Your task to perform on an android device: open a new tab in the chrome app Image 0: 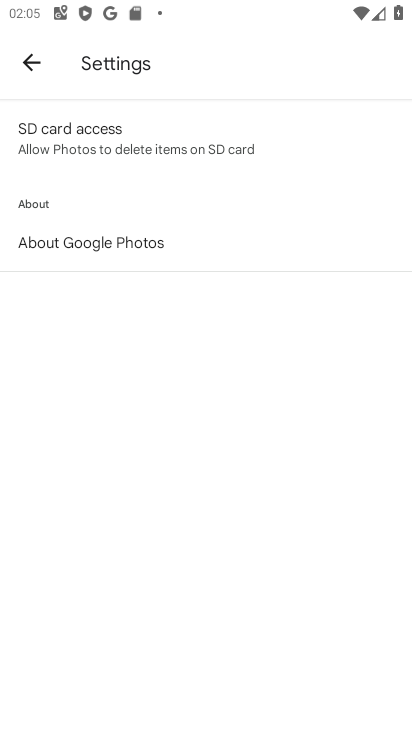
Step 0: click (359, 320)
Your task to perform on an android device: open a new tab in the chrome app Image 1: 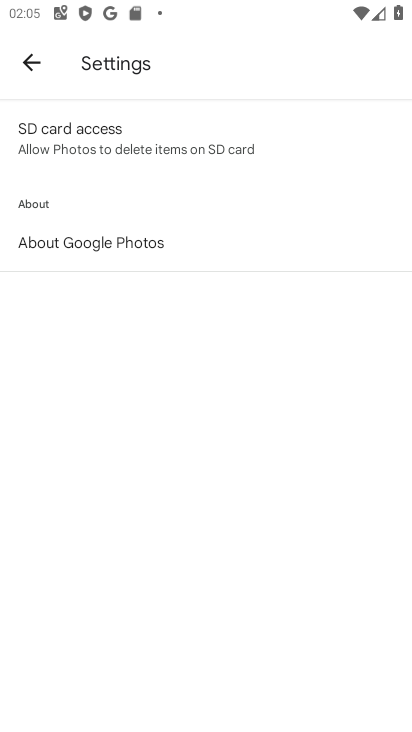
Step 1: click (258, 529)
Your task to perform on an android device: open a new tab in the chrome app Image 2: 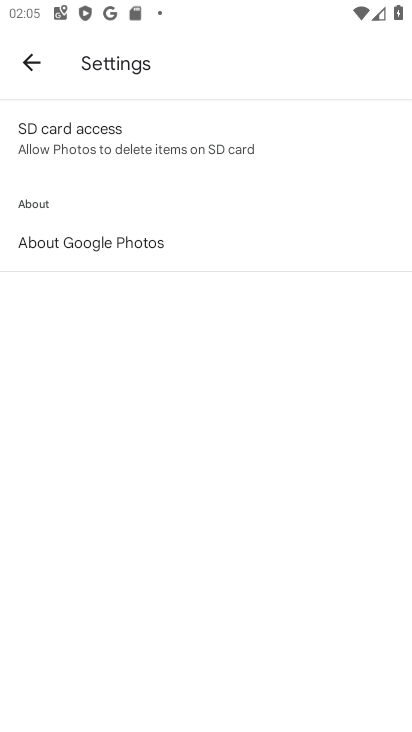
Step 2: press home button
Your task to perform on an android device: open a new tab in the chrome app Image 3: 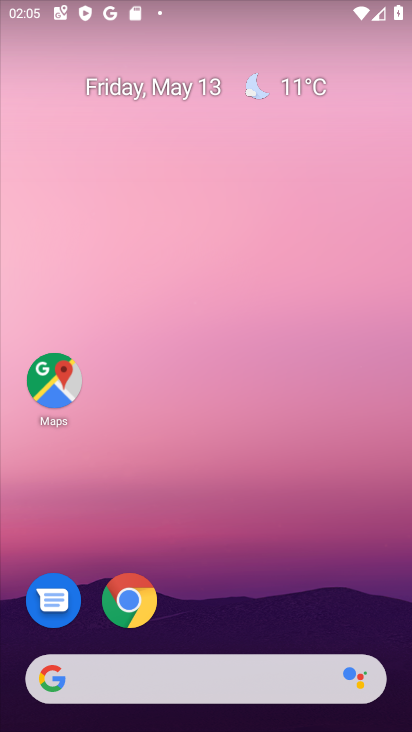
Step 3: drag from (204, 614) to (246, 433)
Your task to perform on an android device: open a new tab in the chrome app Image 4: 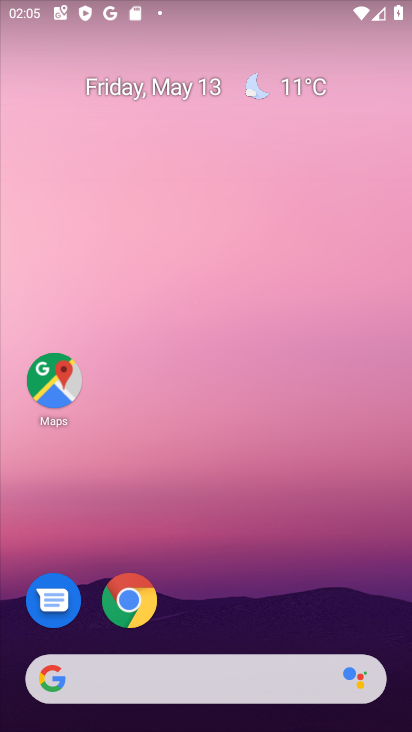
Step 4: drag from (229, 649) to (227, 115)
Your task to perform on an android device: open a new tab in the chrome app Image 5: 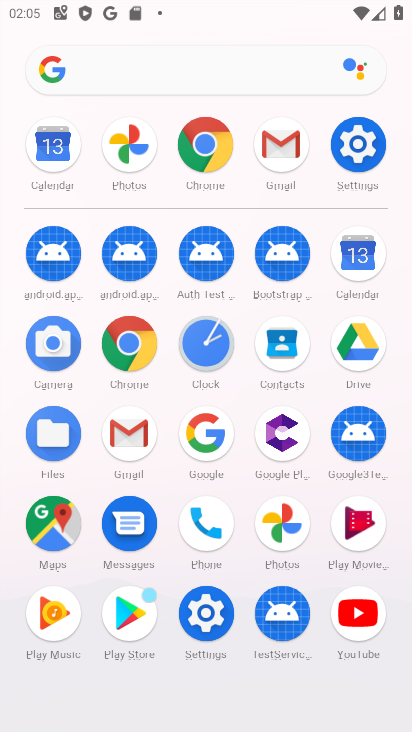
Step 5: click (132, 348)
Your task to perform on an android device: open a new tab in the chrome app Image 6: 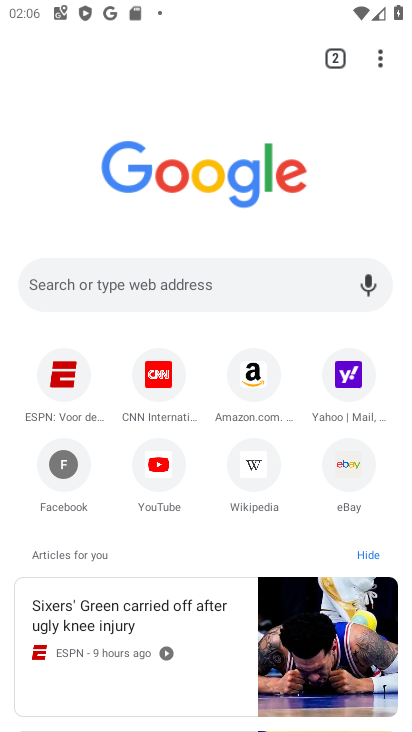
Step 6: click (338, 57)
Your task to perform on an android device: open a new tab in the chrome app Image 7: 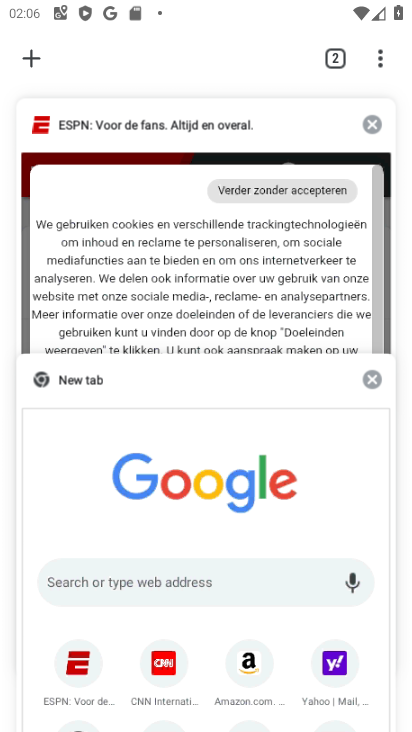
Step 7: click (21, 66)
Your task to perform on an android device: open a new tab in the chrome app Image 8: 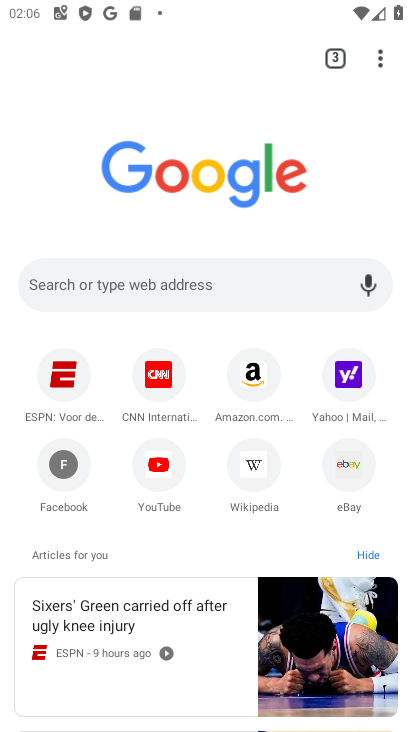
Step 8: task complete